Your task to perform on an android device: read, delete, or share a saved page in the chrome app Image 0: 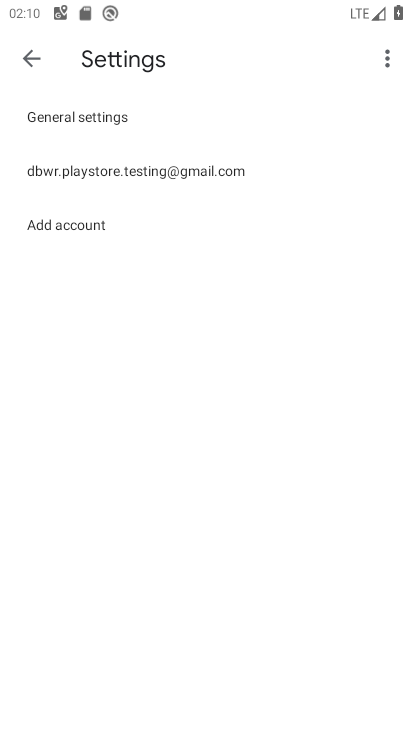
Step 0: press home button
Your task to perform on an android device: read, delete, or share a saved page in the chrome app Image 1: 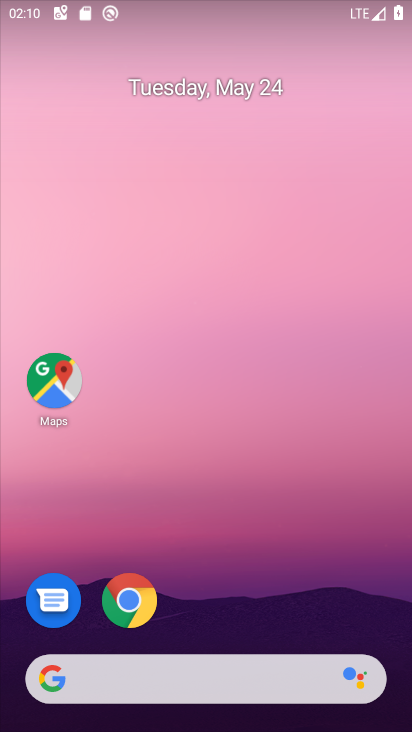
Step 1: click (145, 598)
Your task to perform on an android device: read, delete, or share a saved page in the chrome app Image 2: 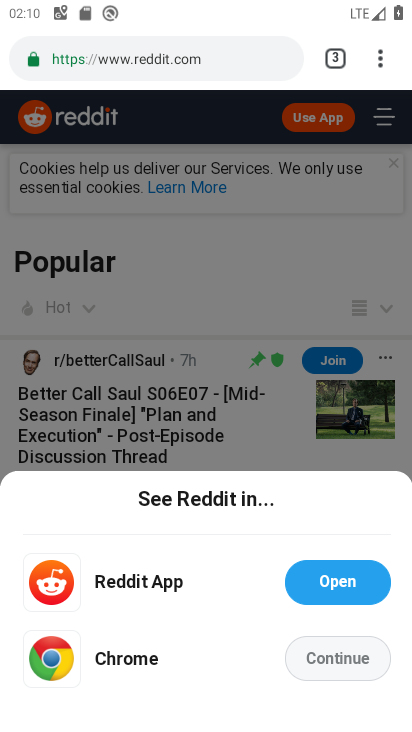
Step 2: click (371, 60)
Your task to perform on an android device: read, delete, or share a saved page in the chrome app Image 3: 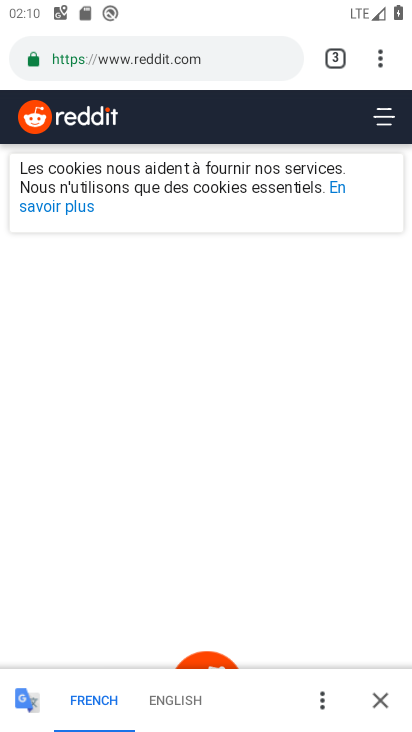
Step 3: click (371, 60)
Your task to perform on an android device: read, delete, or share a saved page in the chrome app Image 4: 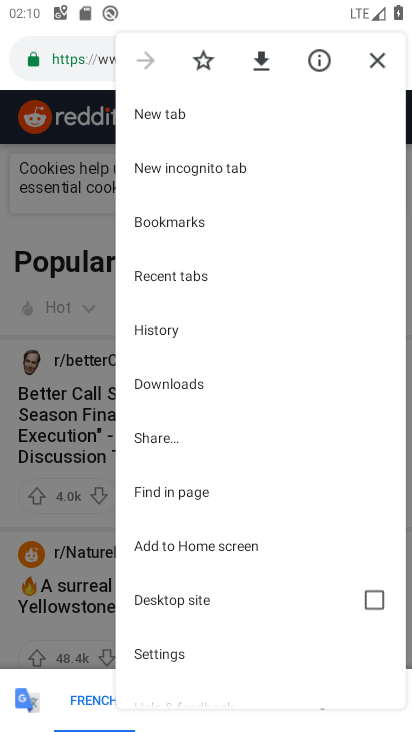
Step 4: click (141, 648)
Your task to perform on an android device: read, delete, or share a saved page in the chrome app Image 5: 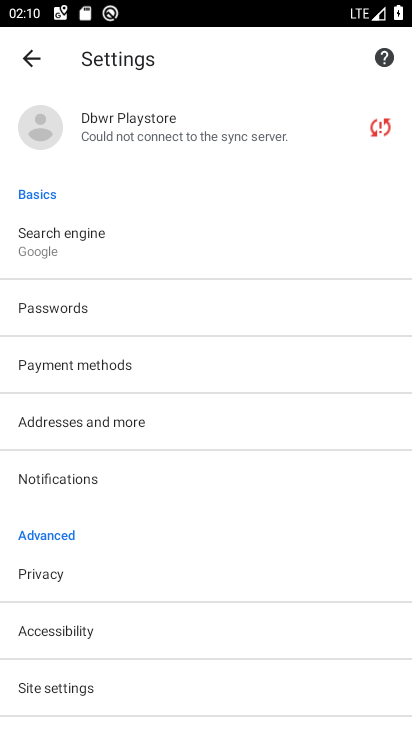
Step 5: drag from (93, 598) to (51, 325)
Your task to perform on an android device: read, delete, or share a saved page in the chrome app Image 6: 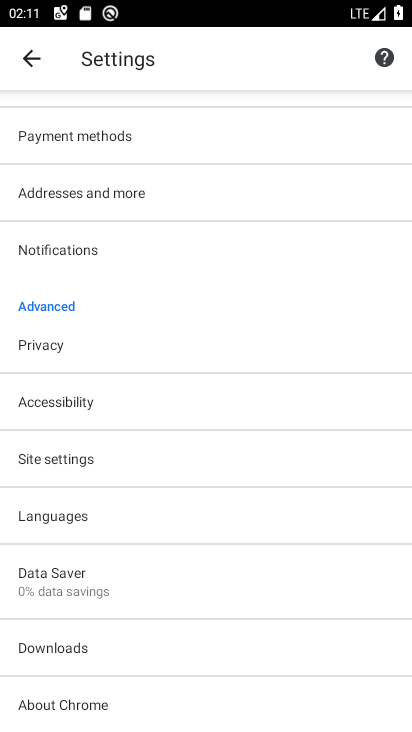
Step 6: drag from (122, 598) to (91, 245)
Your task to perform on an android device: read, delete, or share a saved page in the chrome app Image 7: 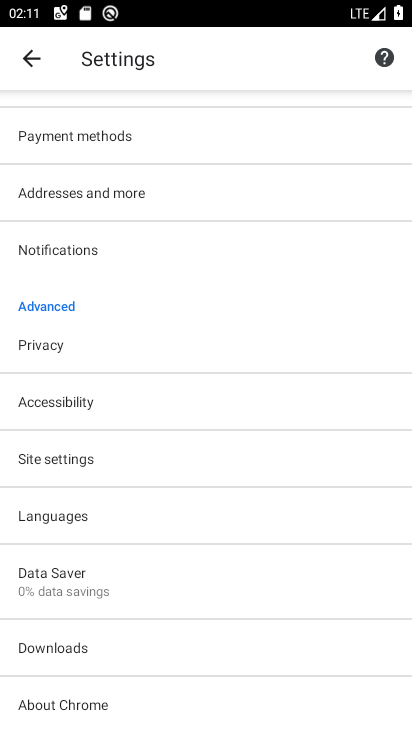
Step 7: click (105, 455)
Your task to perform on an android device: read, delete, or share a saved page in the chrome app Image 8: 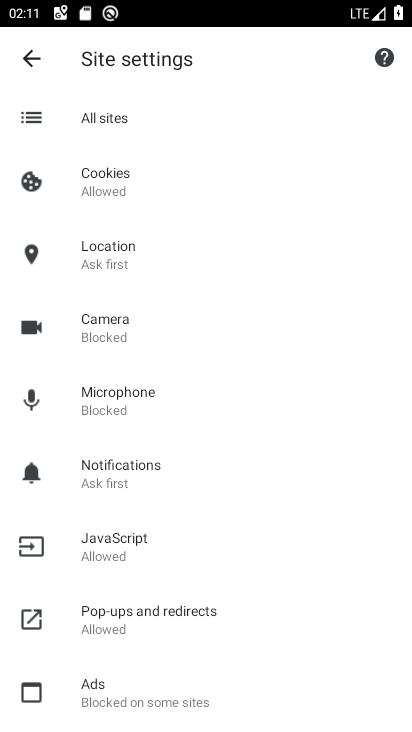
Step 8: drag from (131, 478) to (89, 198)
Your task to perform on an android device: read, delete, or share a saved page in the chrome app Image 9: 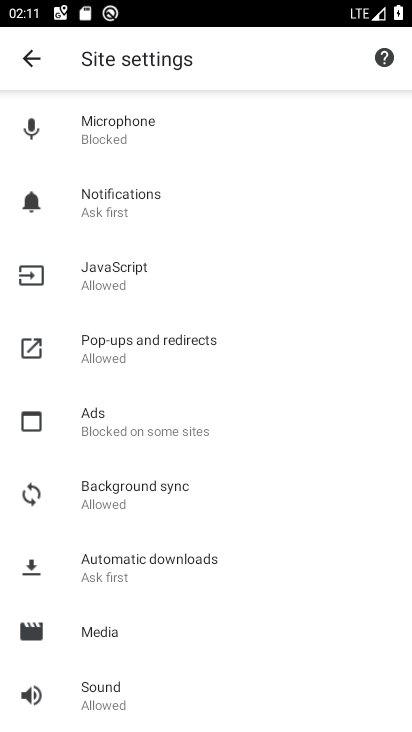
Step 9: drag from (107, 637) to (108, 378)
Your task to perform on an android device: read, delete, or share a saved page in the chrome app Image 10: 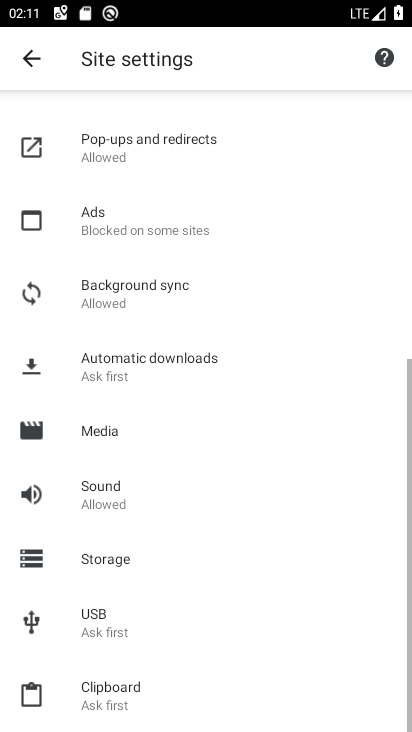
Step 10: drag from (191, 563) to (213, 305)
Your task to perform on an android device: read, delete, or share a saved page in the chrome app Image 11: 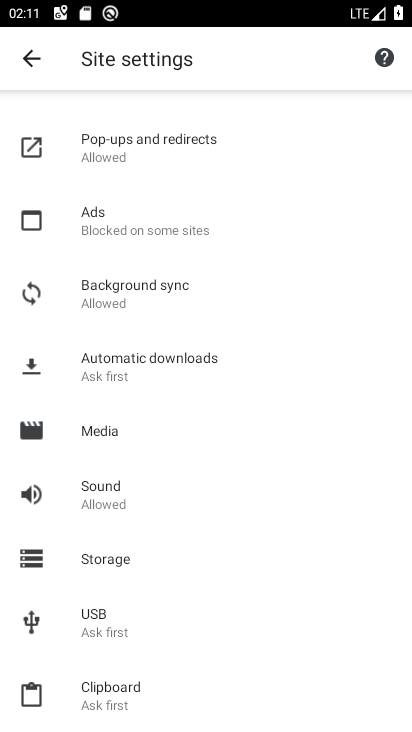
Step 11: drag from (174, 617) to (202, 340)
Your task to perform on an android device: read, delete, or share a saved page in the chrome app Image 12: 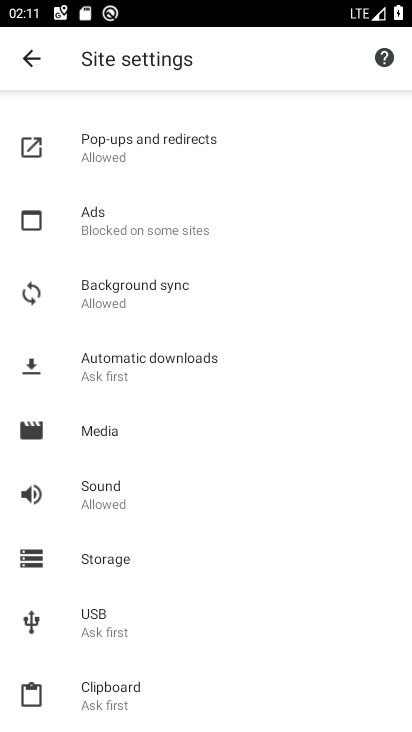
Step 12: drag from (242, 143) to (146, 648)
Your task to perform on an android device: read, delete, or share a saved page in the chrome app Image 13: 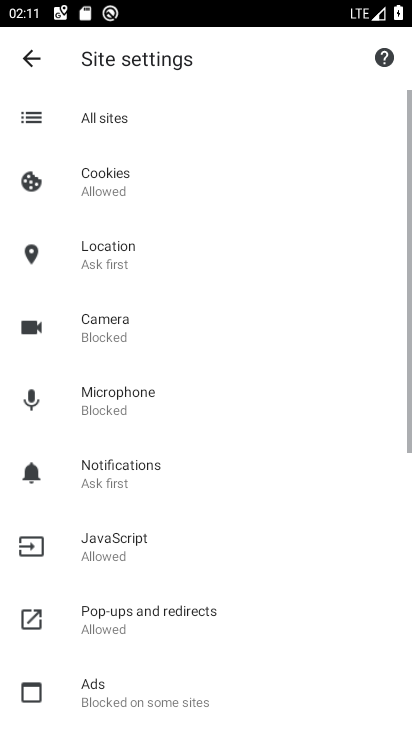
Step 13: drag from (213, 323) to (223, 620)
Your task to perform on an android device: read, delete, or share a saved page in the chrome app Image 14: 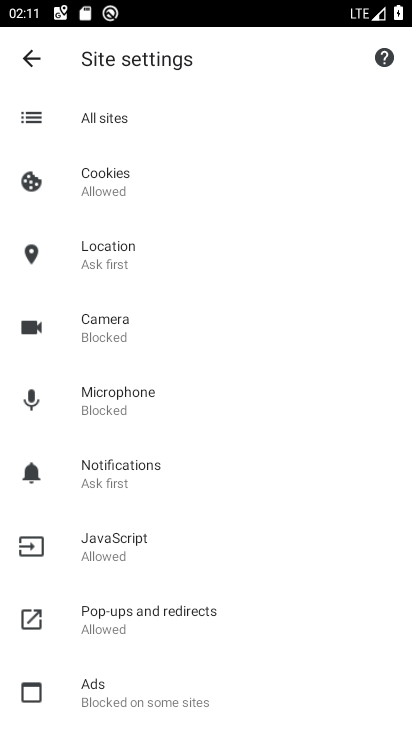
Step 14: drag from (229, 219) to (189, 524)
Your task to perform on an android device: read, delete, or share a saved page in the chrome app Image 15: 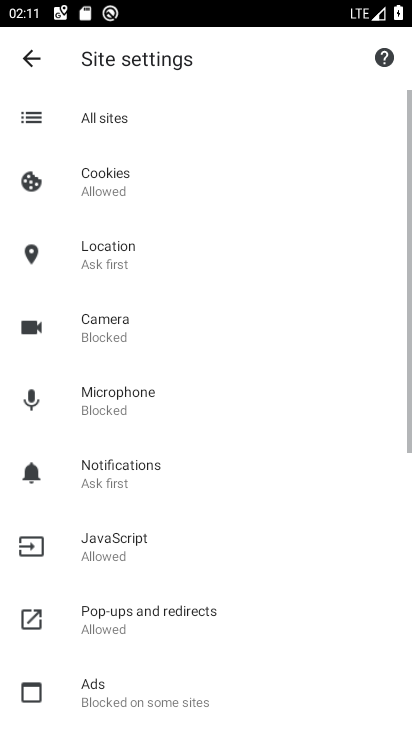
Step 15: drag from (212, 255) to (181, 472)
Your task to perform on an android device: read, delete, or share a saved page in the chrome app Image 16: 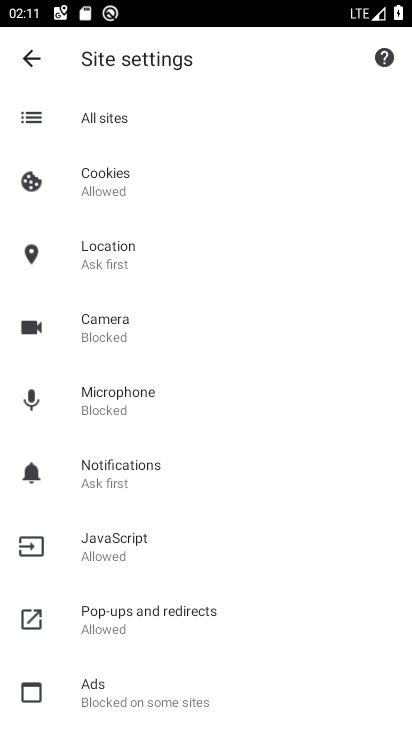
Step 16: drag from (170, 289) to (136, 602)
Your task to perform on an android device: read, delete, or share a saved page in the chrome app Image 17: 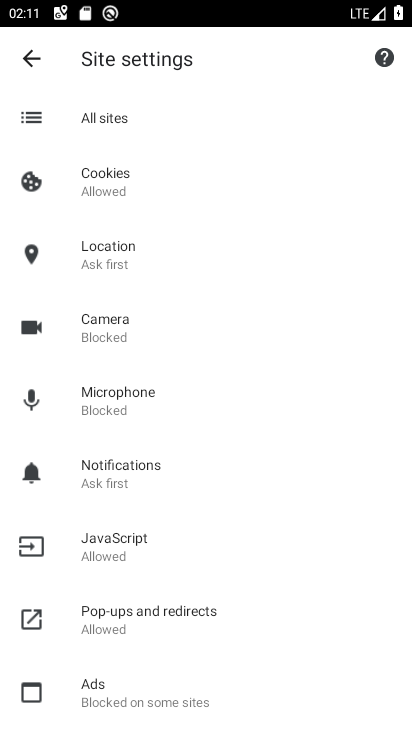
Step 17: drag from (211, 564) to (180, 148)
Your task to perform on an android device: read, delete, or share a saved page in the chrome app Image 18: 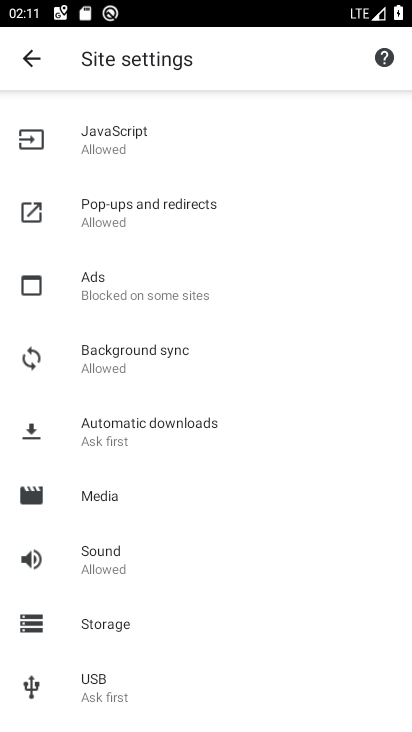
Step 18: drag from (221, 569) to (258, 203)
Your task to perform on an android device: read, delete, or share a saved page in the chrome app Image 19: 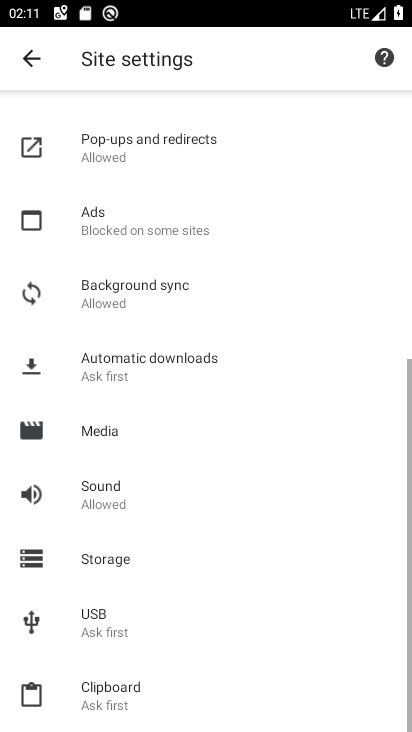
Step 19: drag from (161, 657) to (124, 334)
Your task to perform on an android device: read, delete, or share a saved page in the chrome app Image 20: 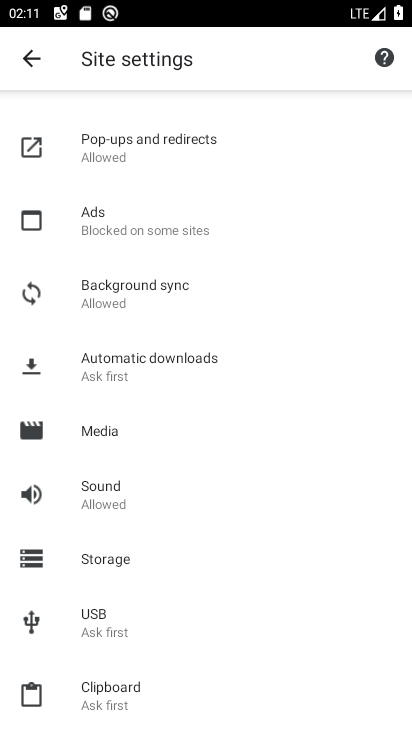
Step 20: drag from (227, 245) to (226, 631)
Your task to perform on an android device: read, delete, or share a saved page in the chrome app Image 21: 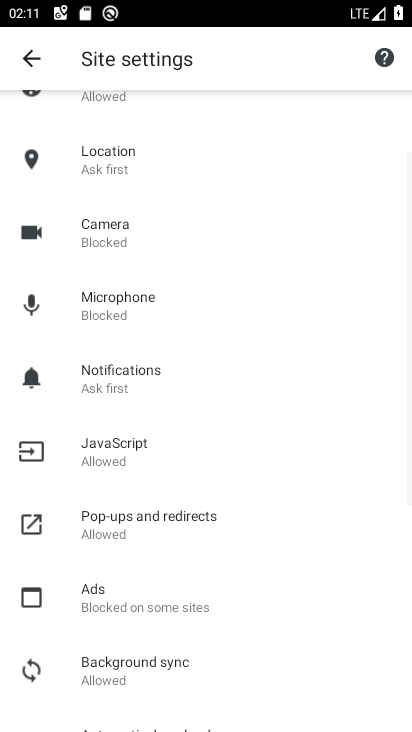
Step 21: drag from (213, 307) to (216, 670)
Your task to perform on an android device: read, delete, or share a saved page in the chrome app Image 22: 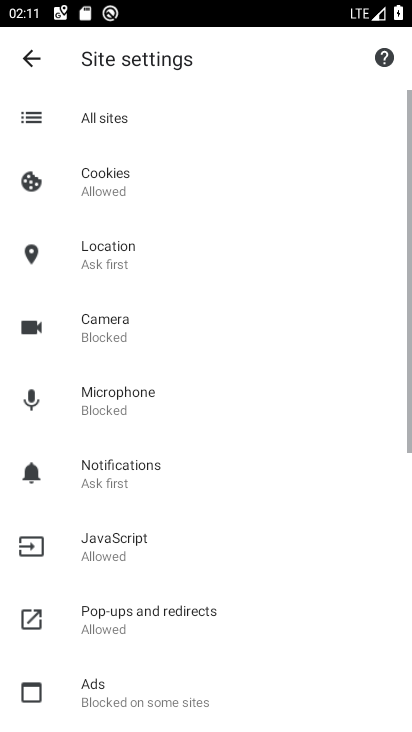
Step 22: click (134, 112)
Your task to perform on an android device: read, delete, or share a saved page in the chrome app Image 23: 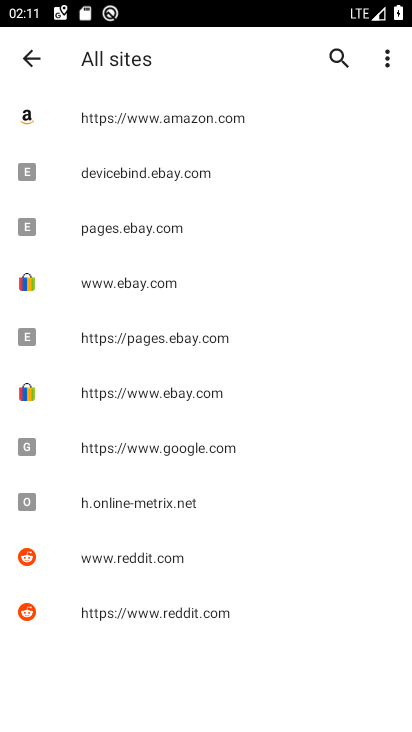
Step 23: task complete